Your task to perform on an android device: turn on sleep mode Image 0: 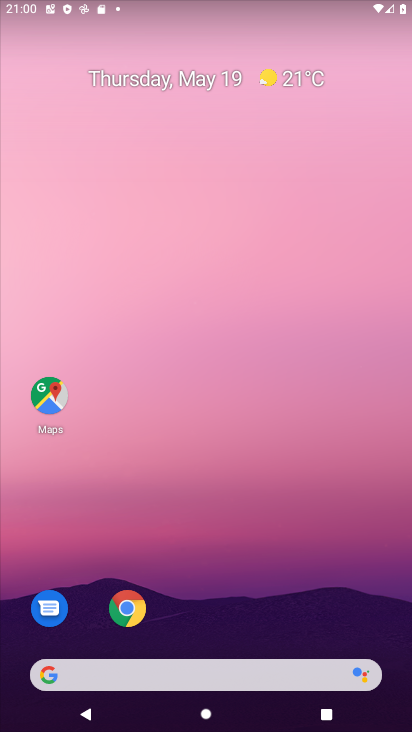
Step 0: drag from (268, 528) to (251, 4)
Your task to perform on an android device: turn on sleep mode Image 1: 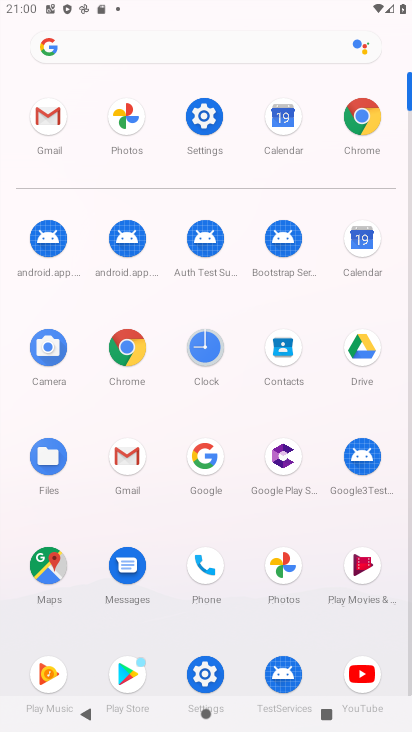
Step 1: click (196, 114)
Your task to perform on an android device: turn on sleep mode Image 2: 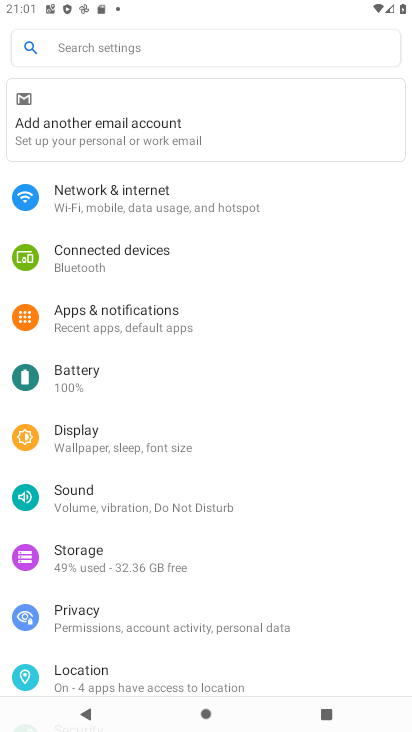
Step 2: click (90, 440)
Your task to perform on an android device: turn on sleep mode Image 3: 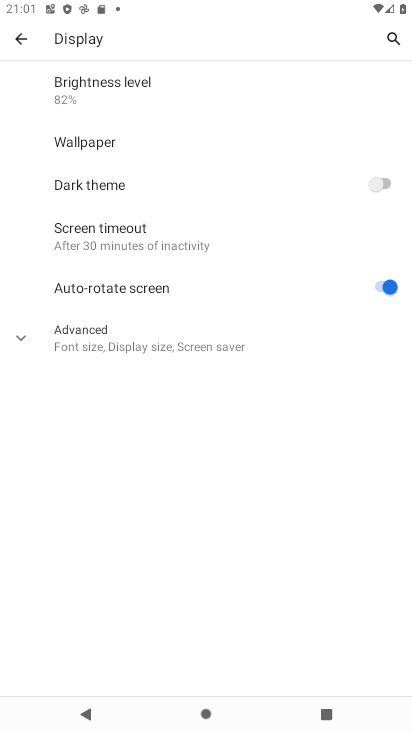
Step 3: task complete